Your task to perform on an android device: Show me the alarms in the clock app Image 0: 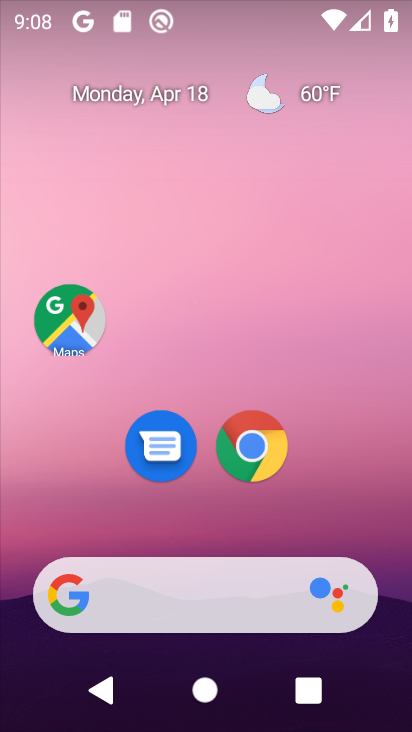
Step 0: drag from (376, 492) to (363, 95)
Your task to perform on an android device: Show me the alarms in the clock app Image 1: 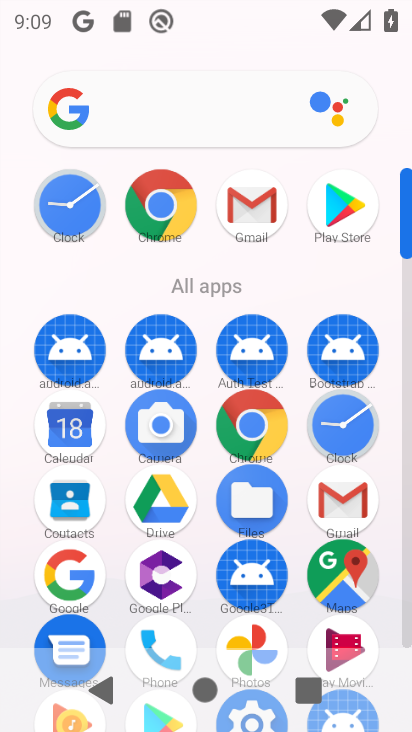
Step 1: click (344, 427)
Your task to perform on an android device: Show me the alarms in the clock app Image 2: 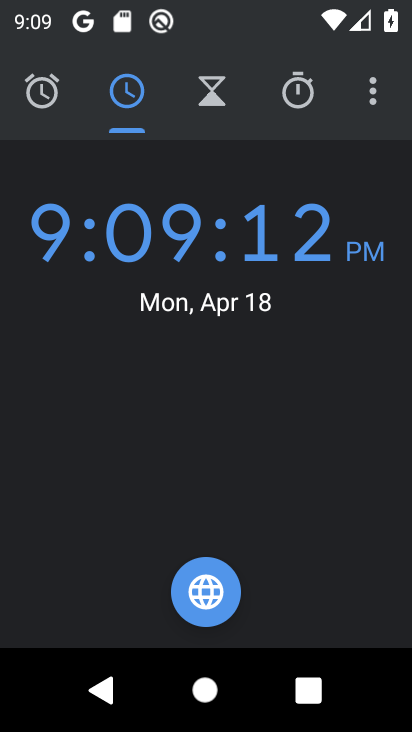
Step 2: click (35, 93)
Your task to perform on an android device: Show me the alarms in the clock app Image 3: 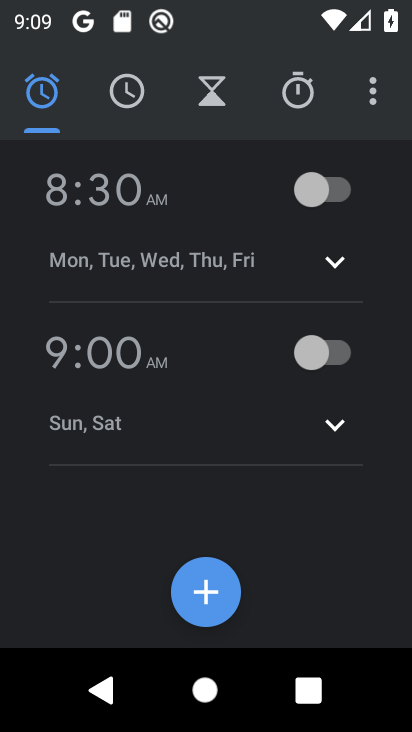
Step 3: task complete